Your task to perform on an android device: find snoozed emails in the gmail app Image 0: 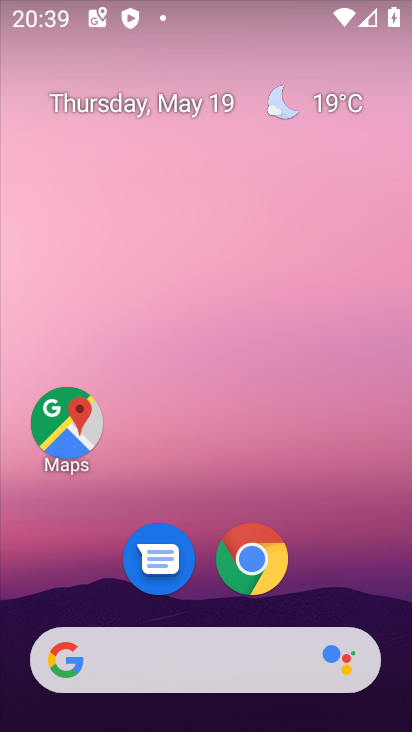
Step 0: drag from (232, 663) to (385, 168)
Your task to perform on an android device: find snoozed emails in the gmail app Image 1: 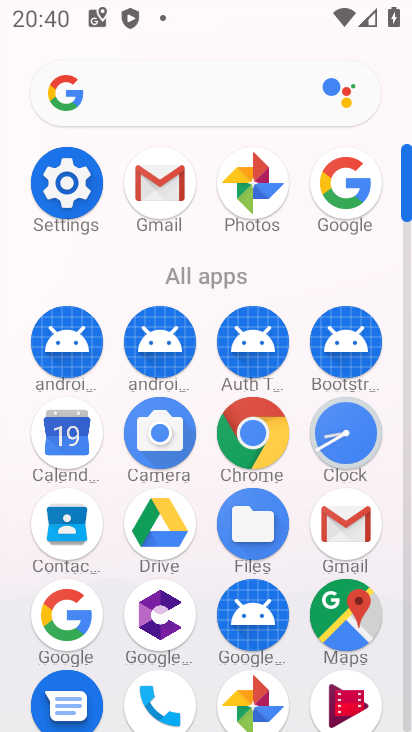
Step 1: click (175, 181)
Your task to perform on an android device: find snoozed emails in the gmail app Image 2: 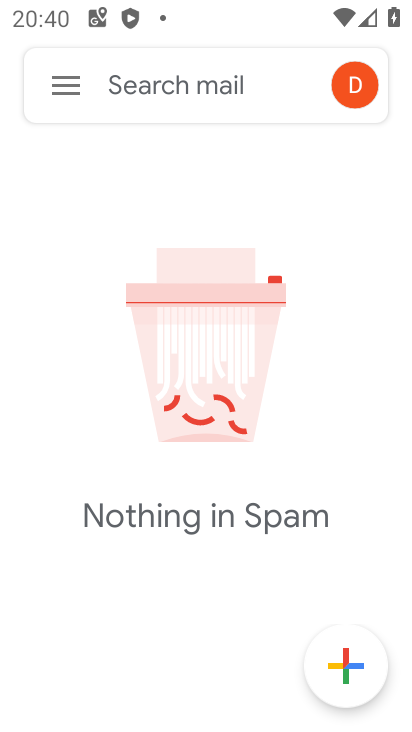
Step 2: click (52, 78)
Your task to perform on an android device: find snoozed emails in the gmail app Image 3: 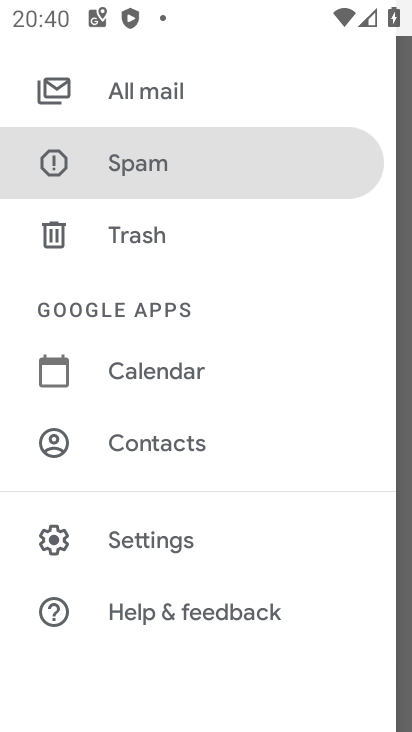
Step 3: drag from (118, 212) to (170, 691)
Your task to perform on an android device: find snoozed emails in the gmail app Image 4: 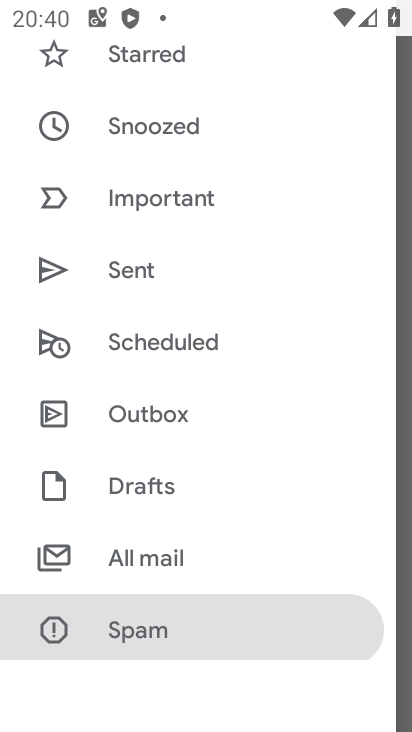
Step 4: click (124, 138)
Your task to perform on an android device: find snoozed emails in the gmail app Image 5: 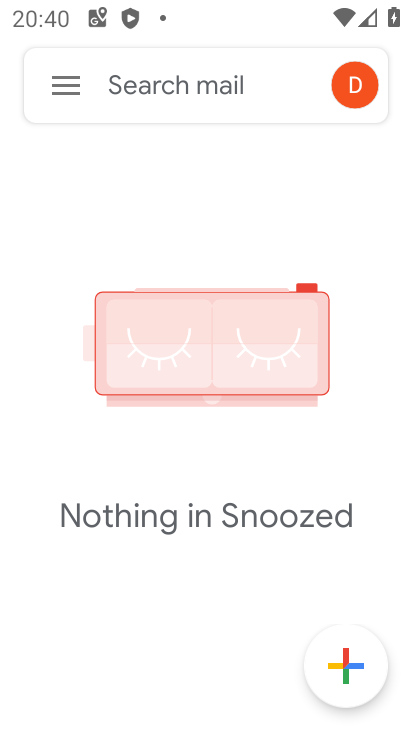
Step 5: click (72, 83)
Your task to perform on an android device: find snoozed emails in the gmail app Image 6: 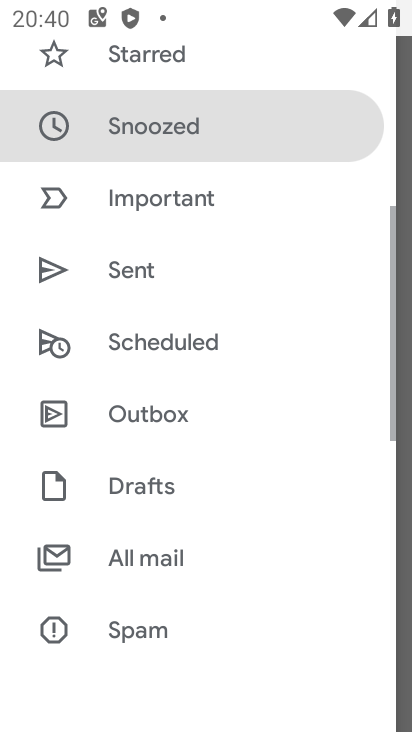
Step 6: click (138, 135)
Your task to perform on an android device: find snoozed emails in the gmail app Image 7: 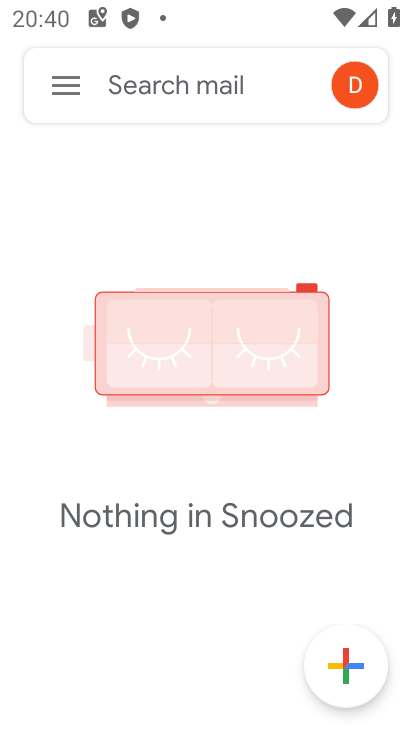
Step 7: task complete